Your task to perform on an android device: toggle show notifications on the lock screen Image 0: 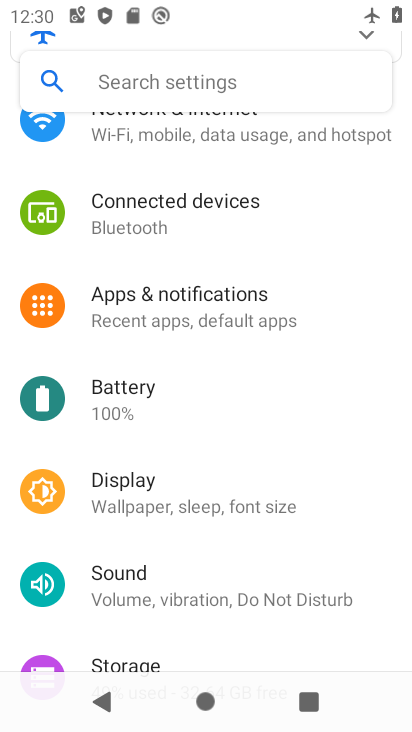
Step 0: click (262, 299)
Your task to perform on an android device: toggle show notifications on the lock screen Image 1: 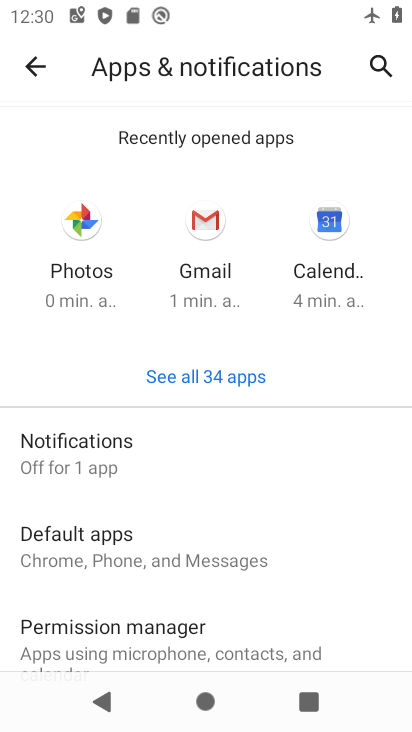
Step 1: click (203, 455)
Your task to perform on an android device: toggle show notifications on the lock screen Image 2: 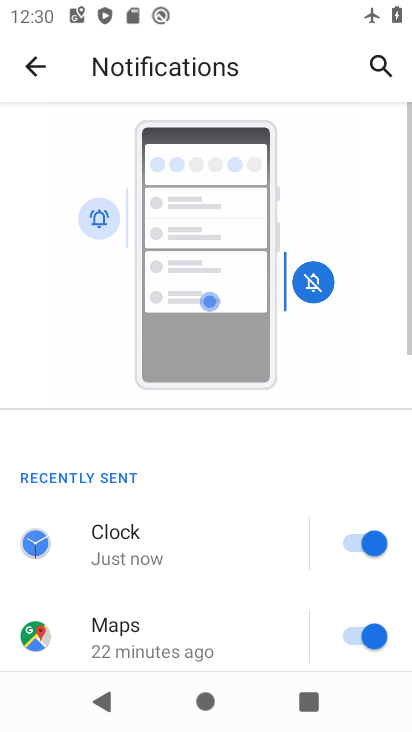
Step 2: task complete